Your task to perform on an android device: Open display settings Image 0: 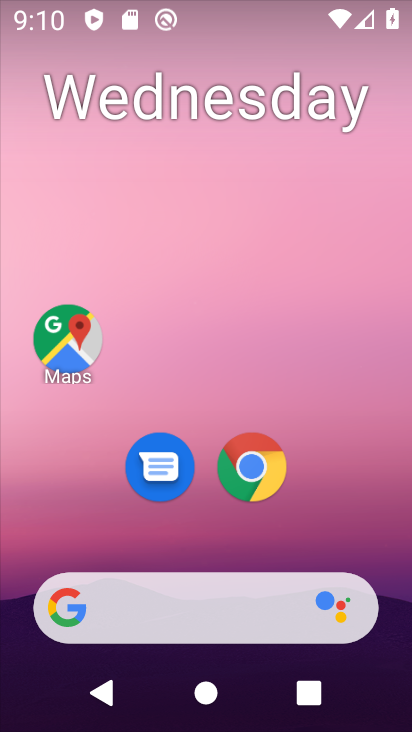
Step 0: drag from (311, 529) to (210, 51)
Your task to perform on an android device: Open display settings Image 1: 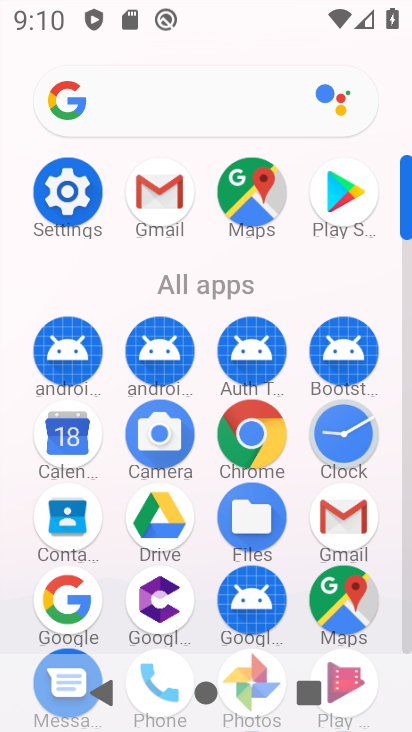
Step 1: click (76, 183)
Your task to perform on an android device: Open display settings Image 2: 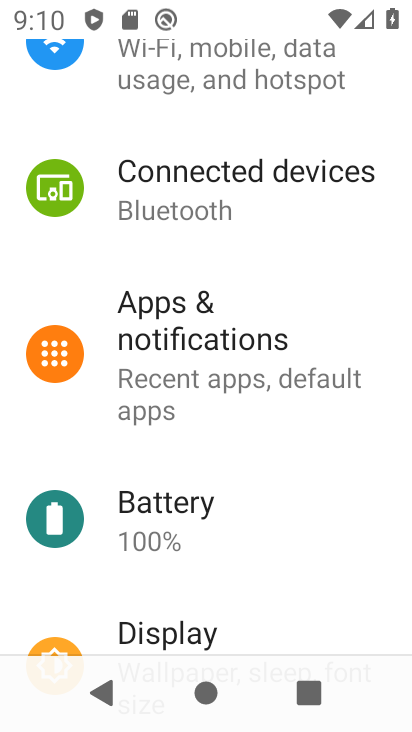
Step 2: click (236, 623)
Your task to perform on an android device: Open display settings Image 3: 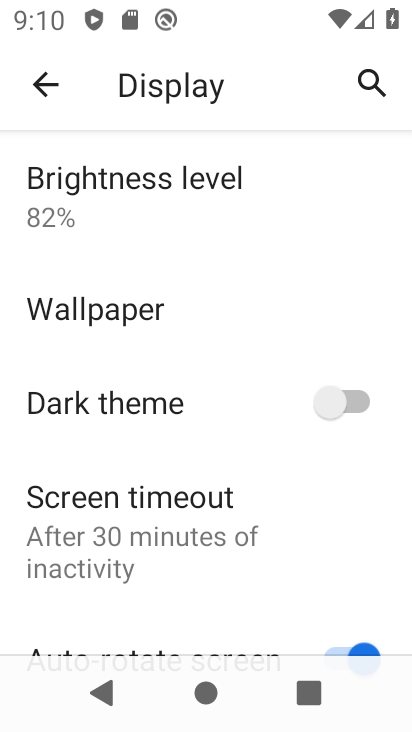
Step 3: task complete